Your task to perform on an android device: Open battery settings Image 0: 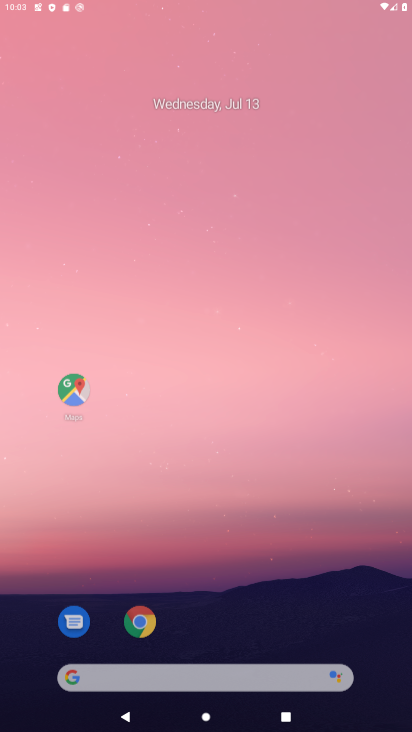
Step 0: press home button
Your task to perform on an android device: Open battery settings Image 1: 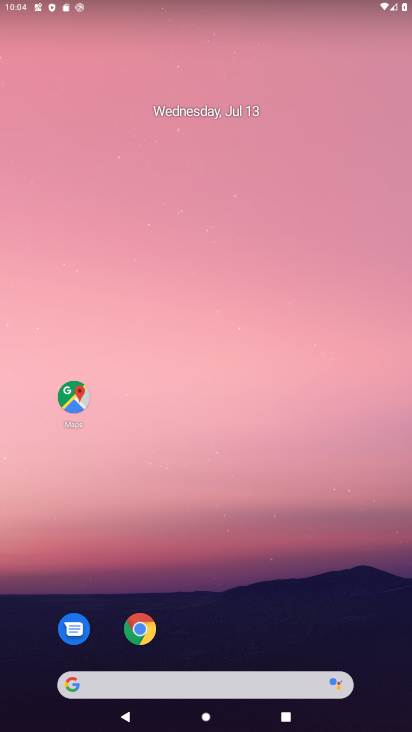
Step 1: drag from (235, 648) to (265, 40)
Your task to perform on an android device: Open battery settings Image 2: 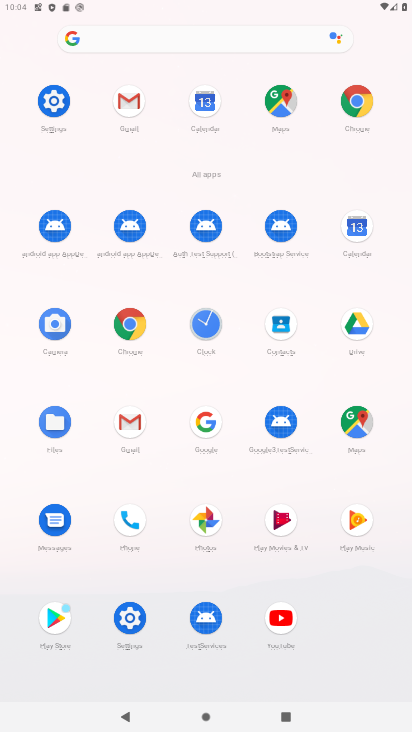
Step 2: click (134, 611)
Your task to perform on an android device: Open battery settings Image 3: 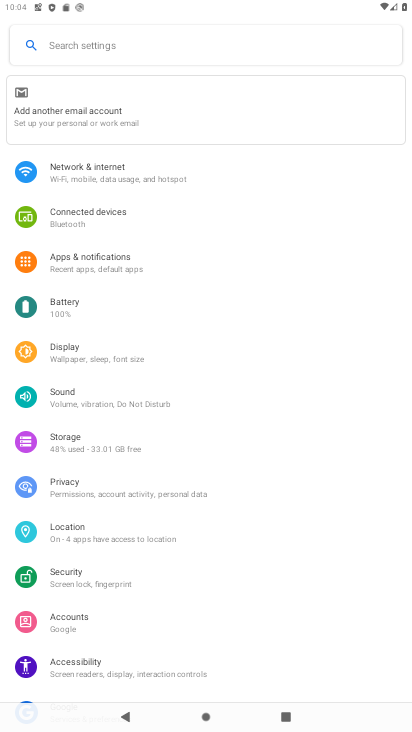
Step 3: click (96, 303)
Your task to perform on an android device: Open battery settings Image 4: 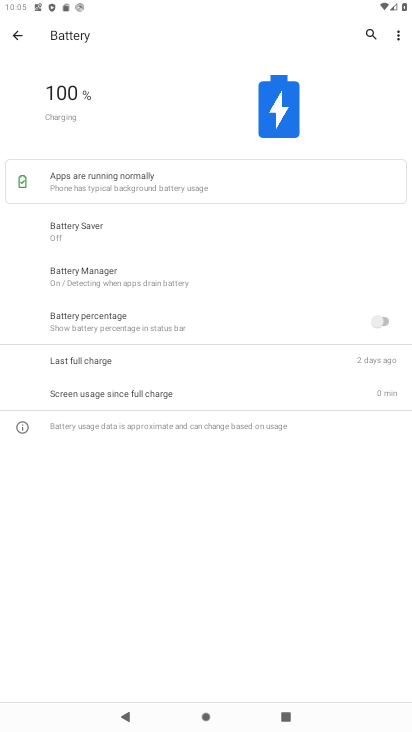
Step 4: task complete